Your task to perform on an android device: Open ESPN.com Image 0: 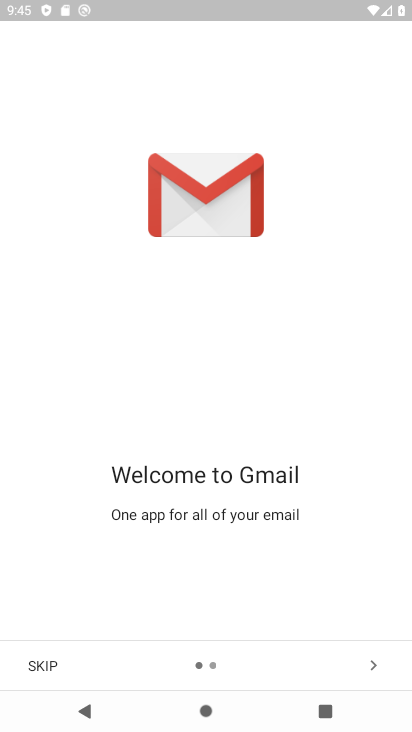
Step 0: press home button
Your task to perform on an android device: Open ESPN.com Image 1: 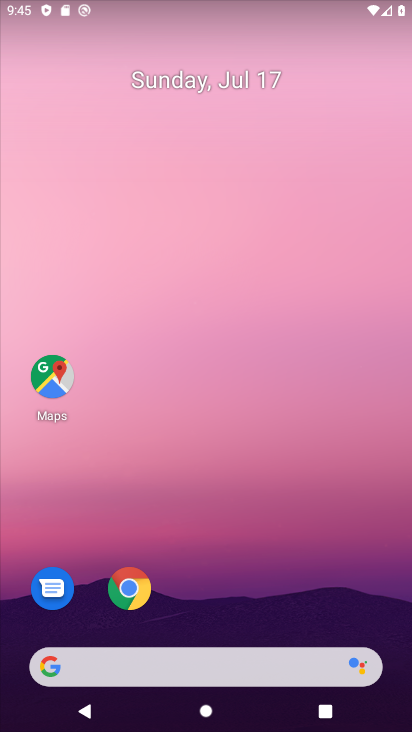
Step 1: drag from (201, 613) to (272, 18)
Your task to perform on an android device: Open ESPN.com Image 2: 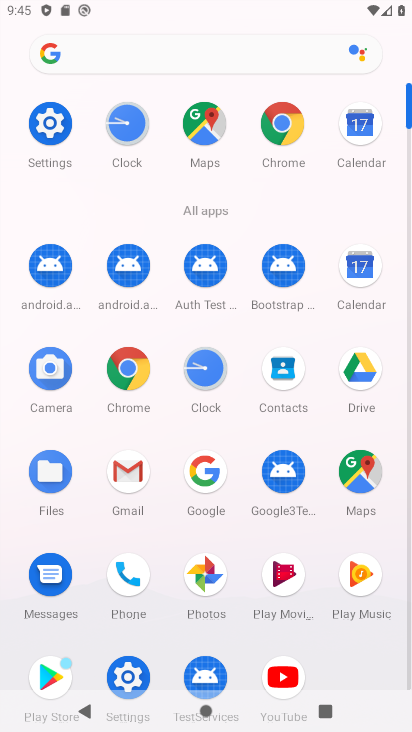
Step 2: click (124, 385)
Your task to perform on an android device: Open ESPN.com Image 3: 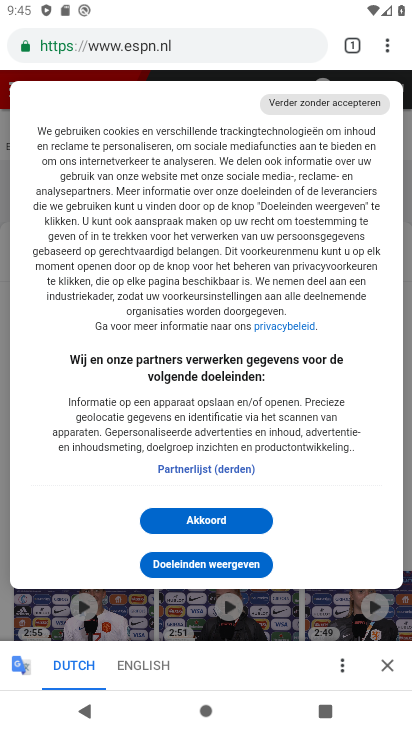
Step 3: drag from (147, 178) to (175, 575)
Your task to perform on an android device: Open ESPN.com Image 4: 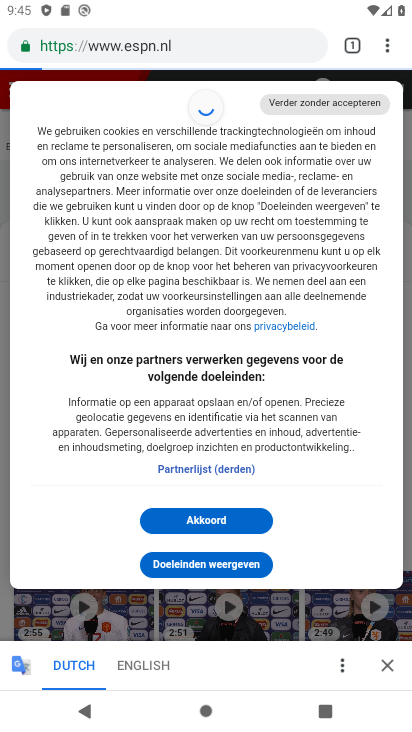
Step 4: click (217, 520)
Your task to perform on an android device: Open ESPN.com Image 5: 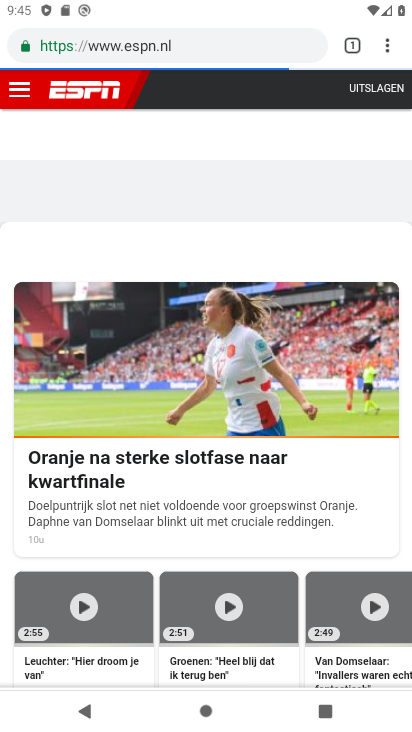
Step 5: task complete